Your task to perform on an android device: open app "The Home Depot" (install if not already installed) Image 0: 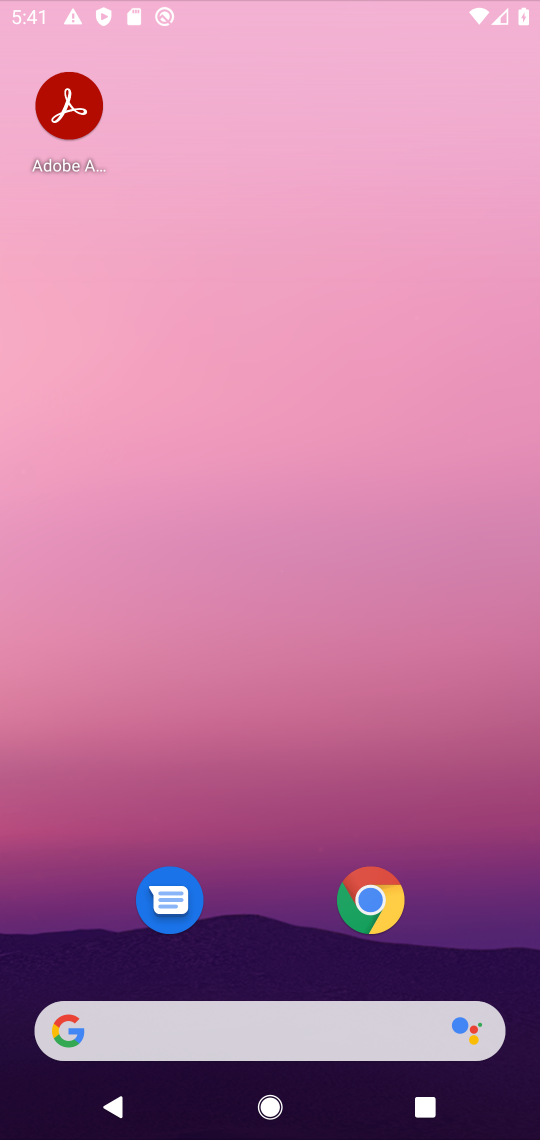
Step 0: press home button
Your task to perform on an android device: open app "The Home Depot" (install if not already installed) Image 1: 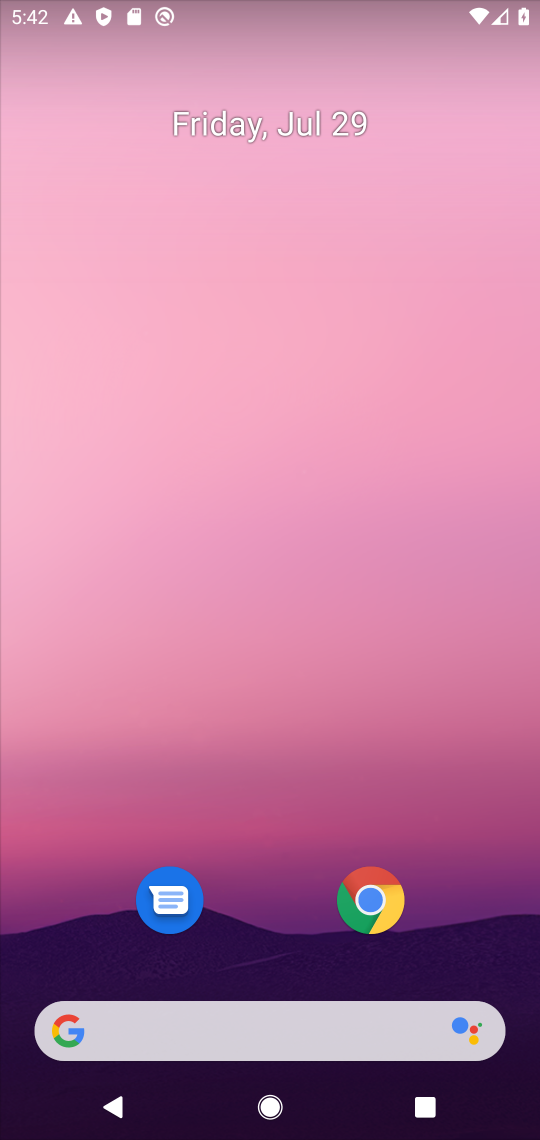
Step 1: drag from (277, 995) to (381, 57)
Your task to perform on an android device: open app "The Home Depot" (install if not already installed) Image 2: 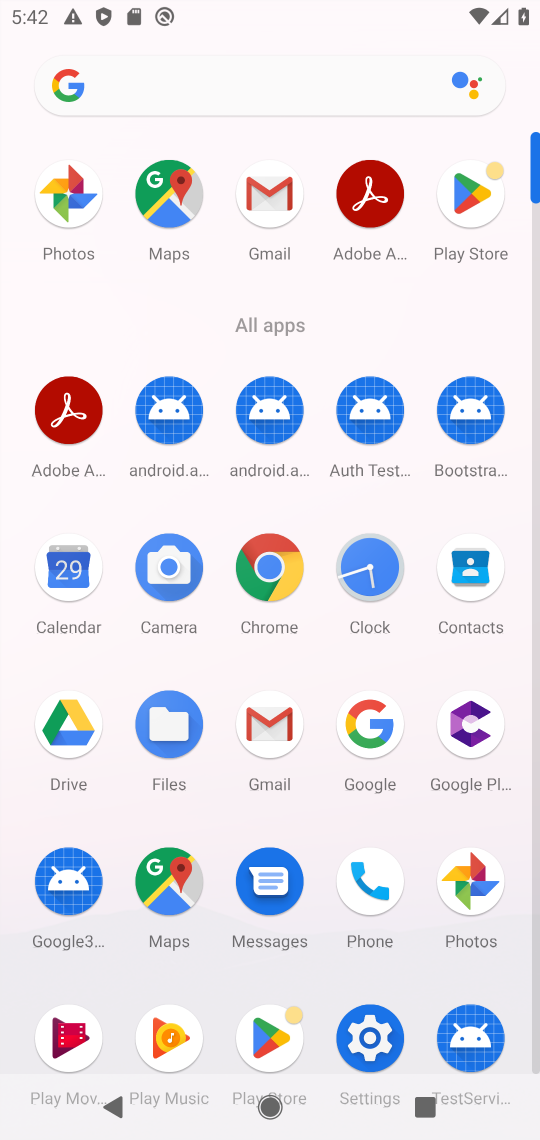
Step 2: click (487, 198)
Your task to perform on an android device: open app "The Home Depot" (install if not already installed) Image 3: 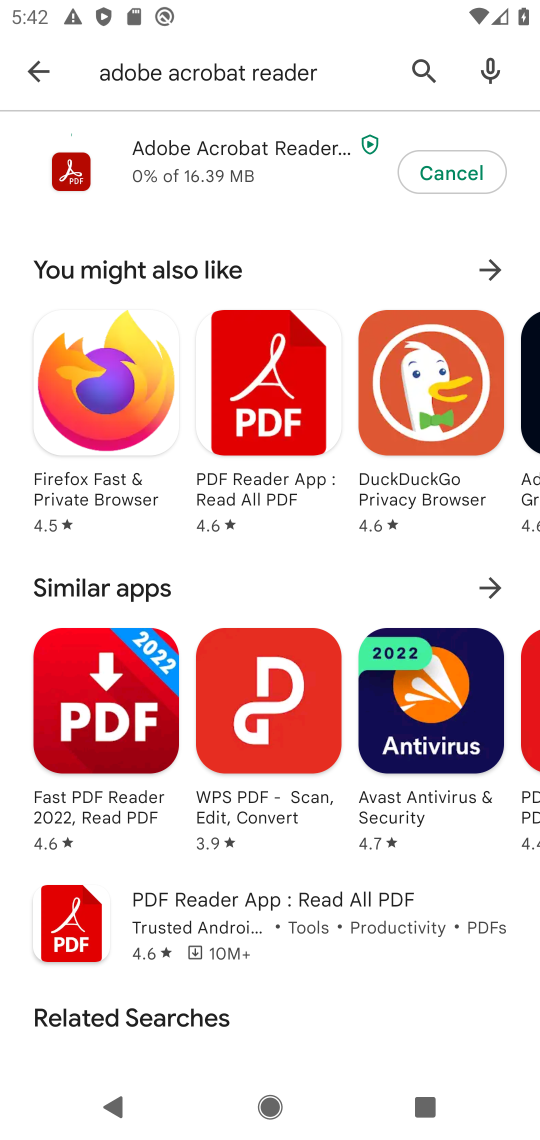
Step 3: click (420, 64)
Your task to perform on an android device: open app "The Home Depot" (install if not already installed) Image 4: 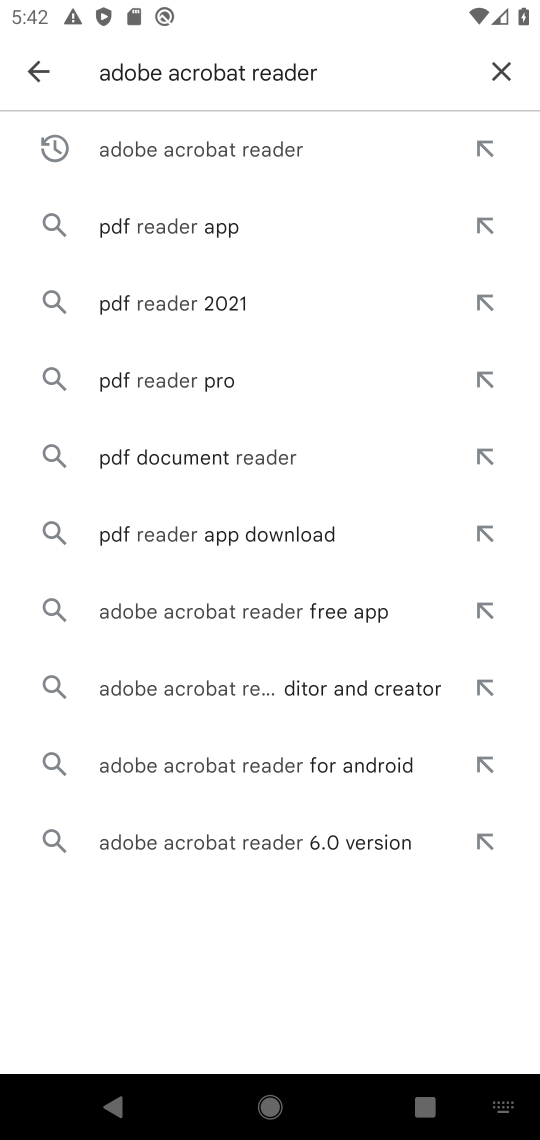
Step 4: click (495, 68)
Your task to perform on an android device: open app "The Home Depot" (install if not already installed) Image 5: 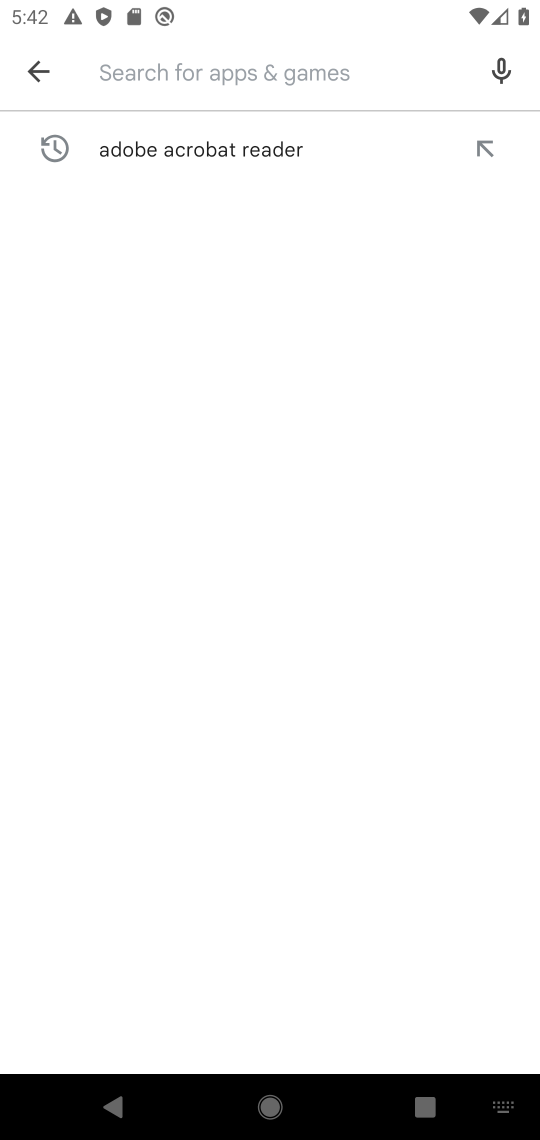
Step 5: type "the home depot"
Your task to perform on an android device: open app "The Home Depot" (install if not already installed) Image 6: 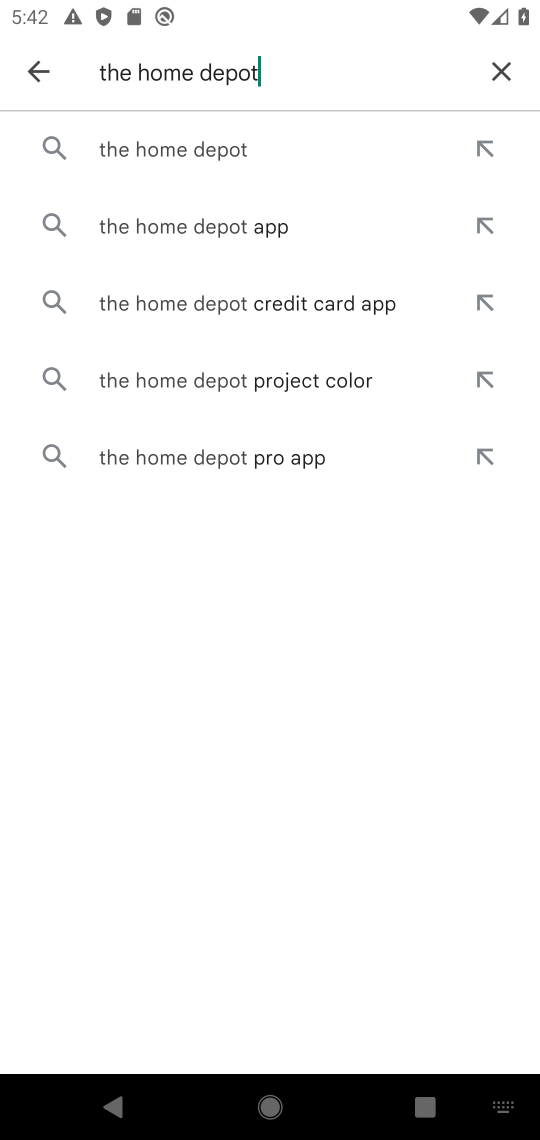
Step 6: click (157, 144)
Your task to perform on an android device: open app "The Home Depot" (install if not already installed) Image 7: 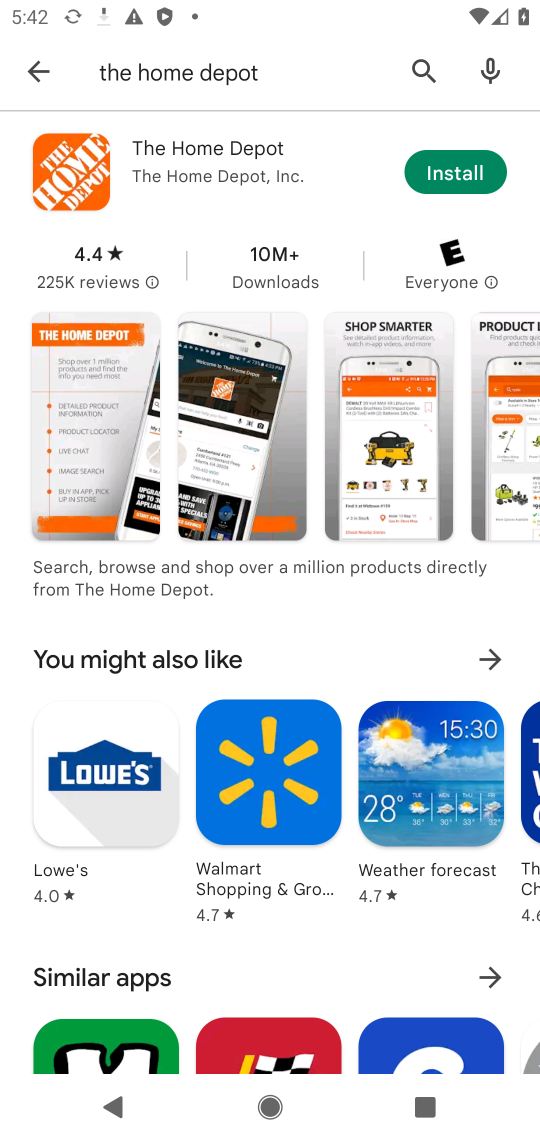
Step 7: click (432, 174)
Your task to perform on an android device: open app "The Home Depot" (install if not already installed) Image 8: 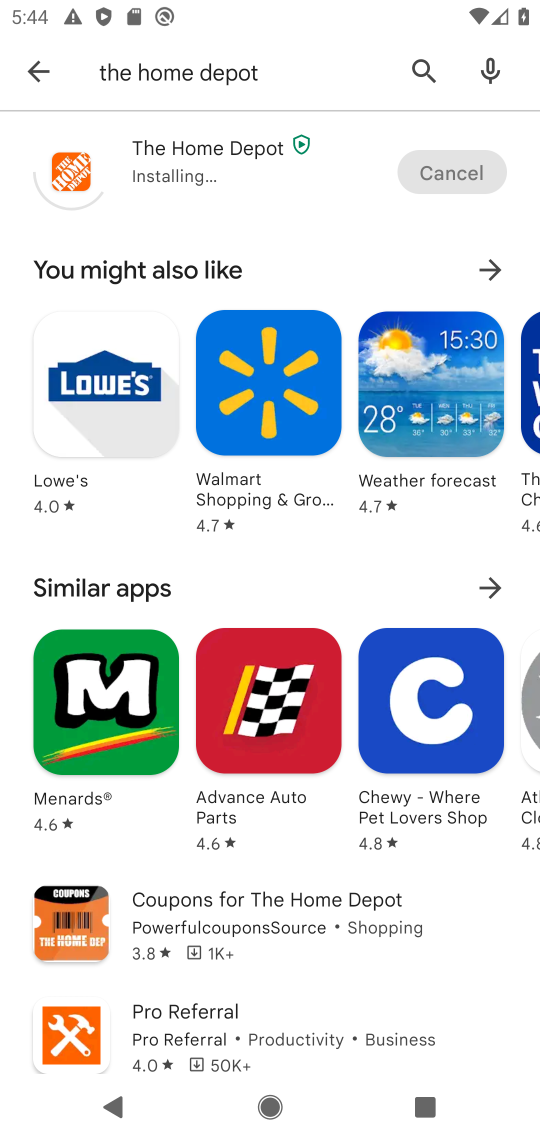
Step 8: task complete